Your task to perform on an android device: Search for vegetarian restaurants on Maps Image 0: 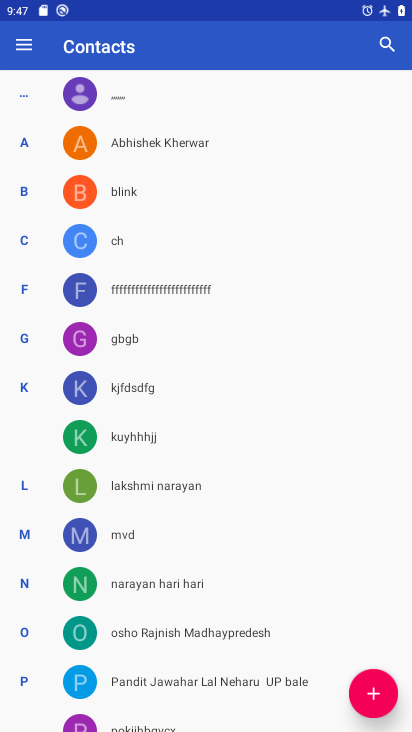
Step 0: press home button
Your task to perform on an android device: Search for vegetarian restaurants on Maps Image 1: 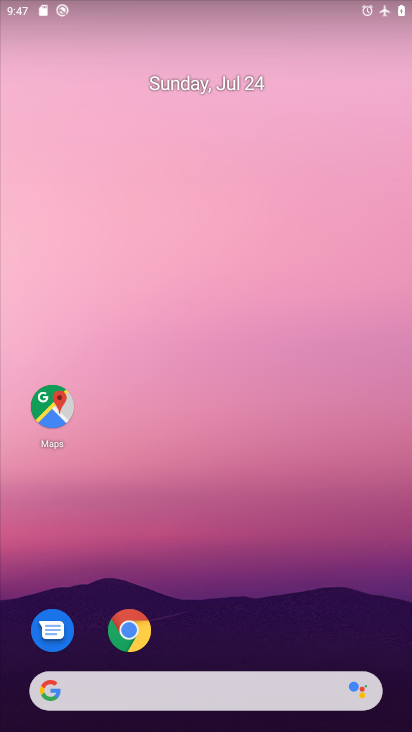
Step 1: drag from (249, 606) to (226, 250)
Your task to perform on an android device: Search for vegetarian restaurants on Maps Image 2: 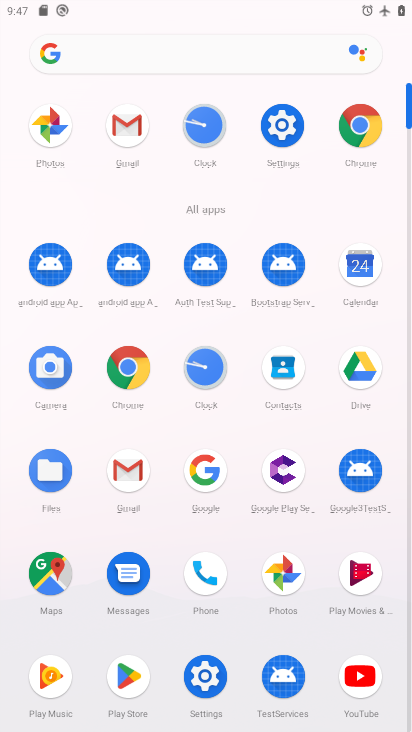
Step 2: click (49, 563)
Your task to perform on an android device: Search for vegetarian restaurants on Maps Image 3: 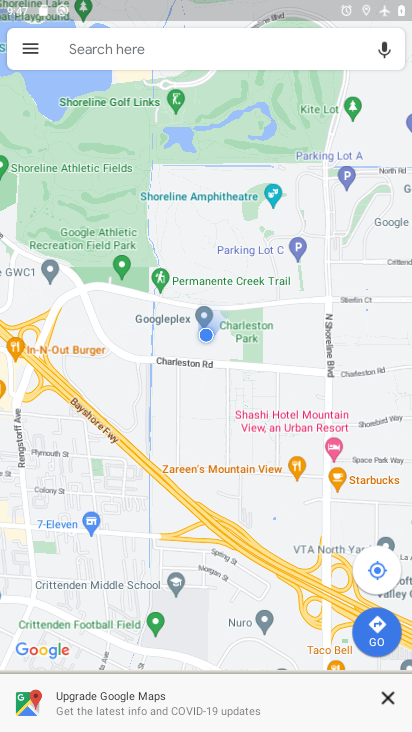
Step 3: click (176, 54)
Your task to perform on an android device: Search for vegetarian restaurants on Maps Image 4: 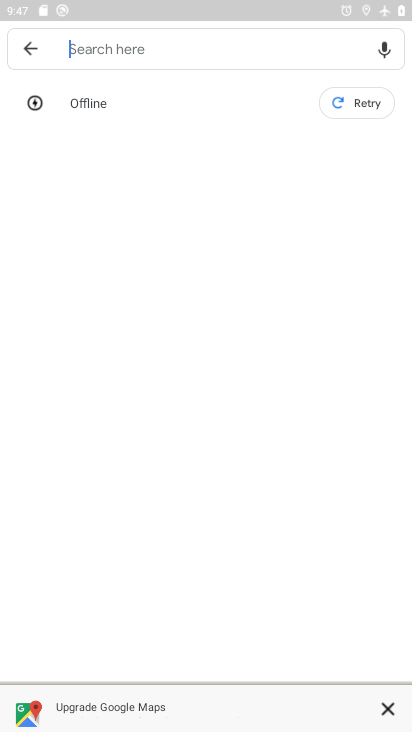
Step 4: click (140, 44)
Your task to perform on an android device: Search for vegetarian restaurants on Maps Image 5: 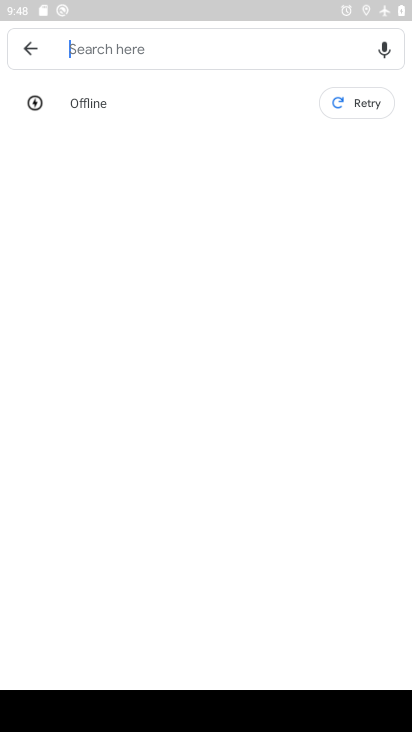
Step 5: click (223, 35)
Your task to perform on an android device: Search for vegetarian restaurants on Maps Image 6: 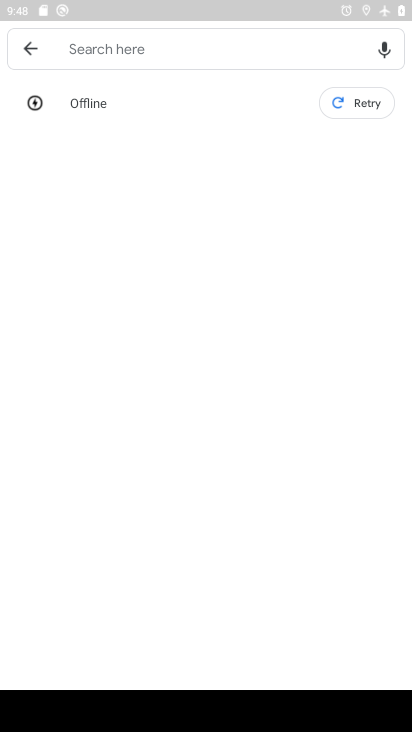
Step 6: type "vegetarian restaurant "
Your task to perform on an android device: Search for vegetarian restaurants on Maps Image 7: 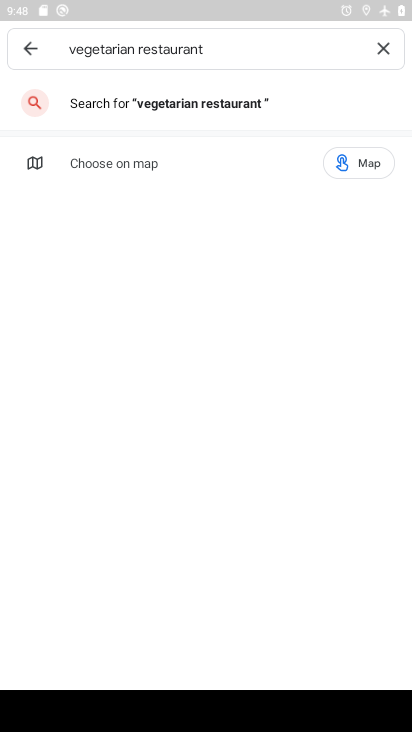
Step 7: click (162, 113)
Your task to perform on an android device: Search for vegetarian restaurants on Maps Image 8: 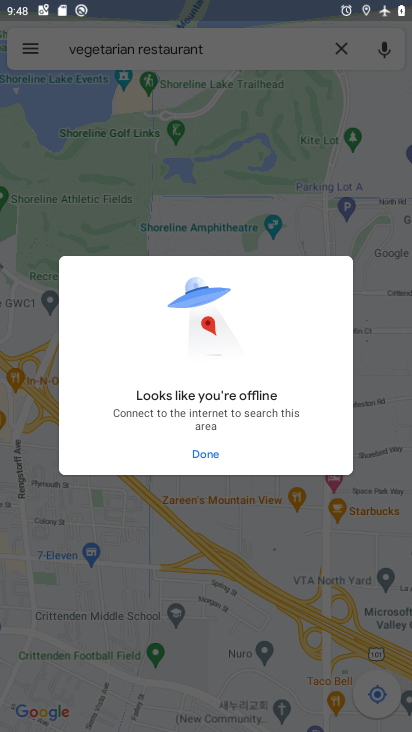
Step 8: click (212, 454)
Your task to perform on an android device: Search for vegetarian restaurants on Maps Image 9: 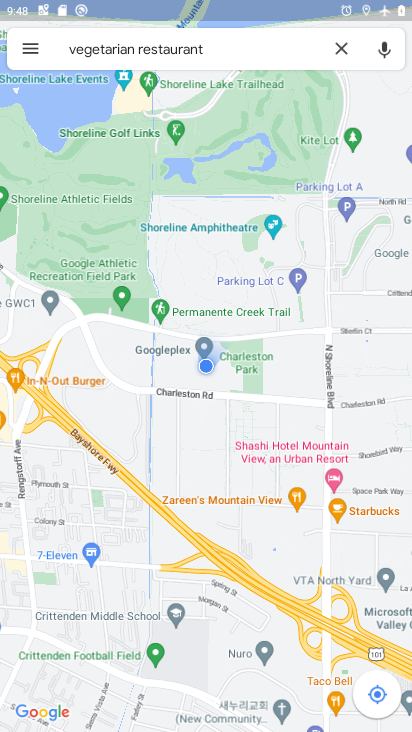
Step 9: task complete